Your task to perform on an android device: turn notification dots off Image 0: 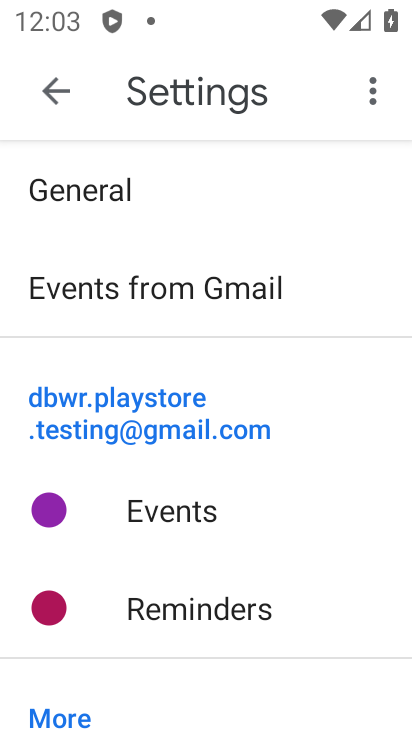
Step 0: press home button
Your task to perform on an android device: turn notification dots off Image 1: 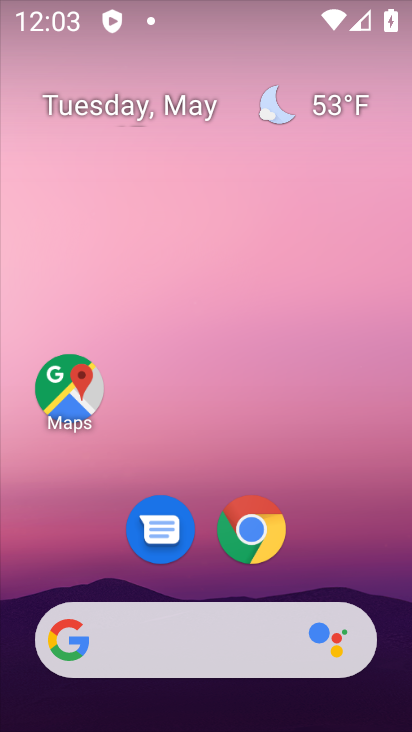
Step 1: drag from (212, 578) to (226, 177)
Your task to perform on an android device: turn notification dots off Image 2: 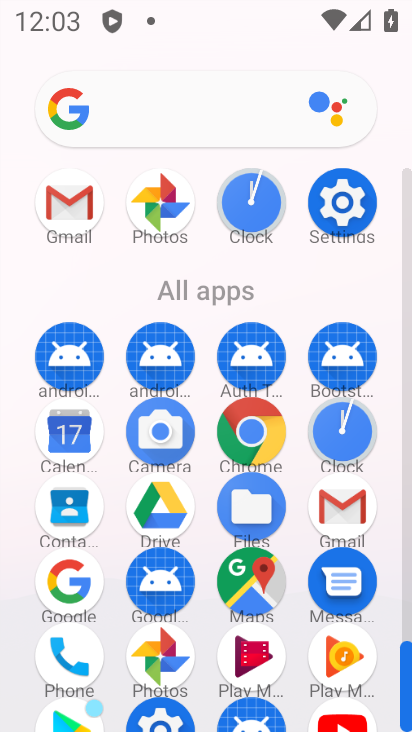
Step 2: click (348, 204)
Your task to perform on an android device: turn notification dots off Image 3: 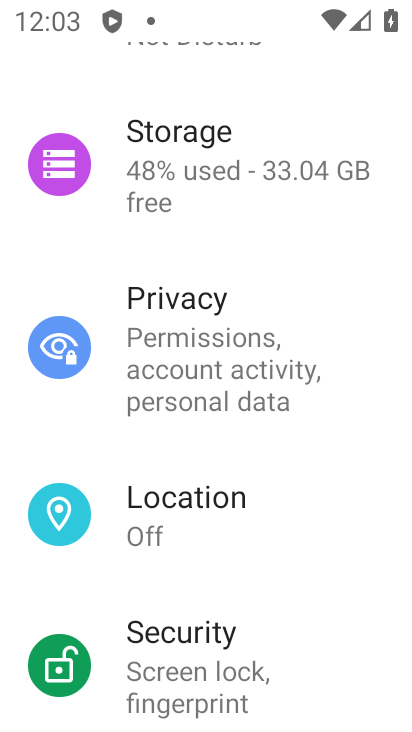
Step 3: drag from (222, 229) to (263, 647)
Your task to perform on an android device: turn notification dots off Image 4: 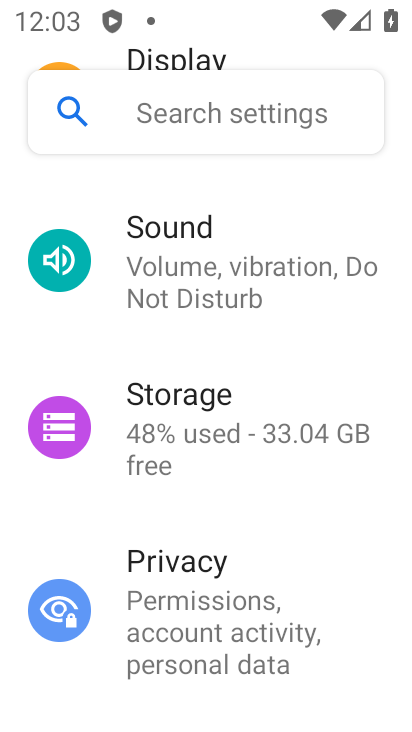
Step 4: drag from (212, 208) to (273, 609)
Your task to perform on an android device: turn notification dots off Image 5: 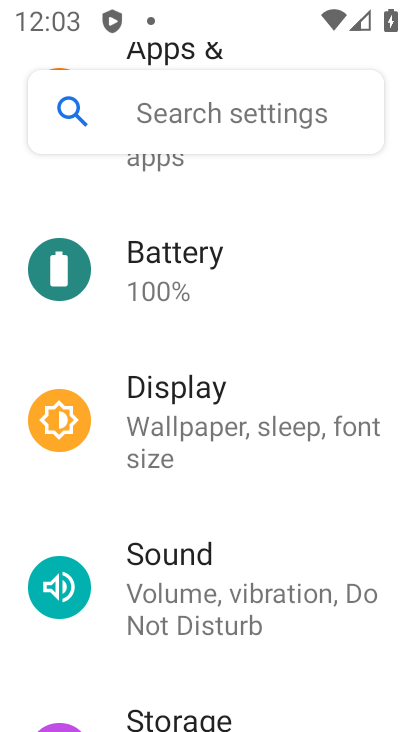
Step 5: drag from (175, 256) to (326, 682)
Your task to perform on an android device: turn notification dots off Image 6: 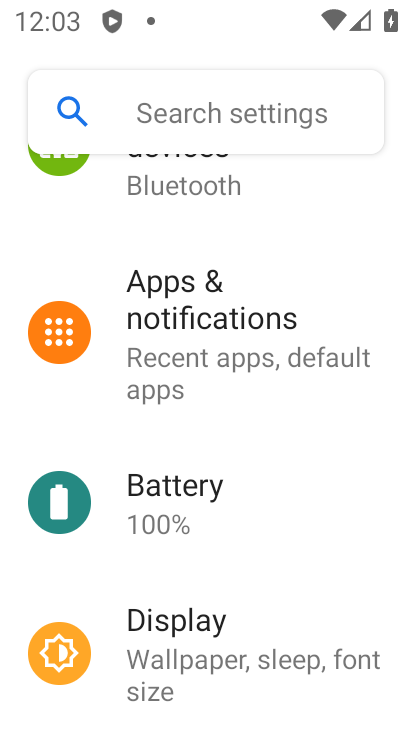
Step 6: click (251, 357)
Your task to perform on an android device: turn notification dots off Image 7: 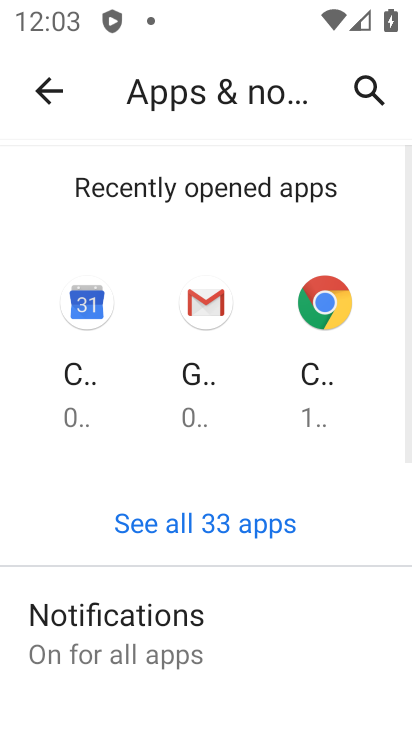
Step 7: click (130, 622)
Your task to perform on an android device: turn notification dots off Image 8: 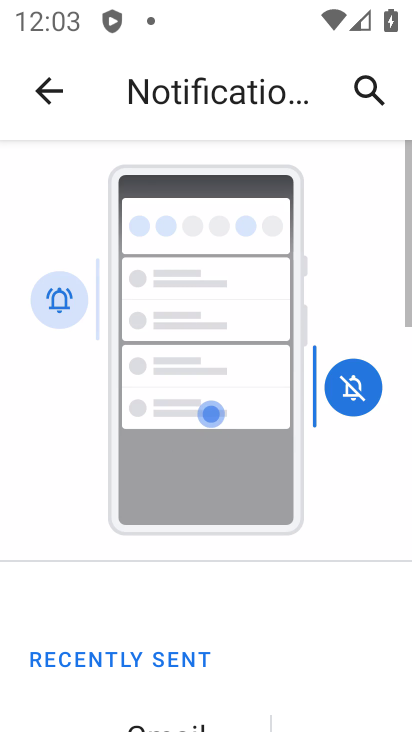
Step 8: drag from (130, 622) to (211, 99)
Your task to perform on an android device: turn notification dots off Image 9: 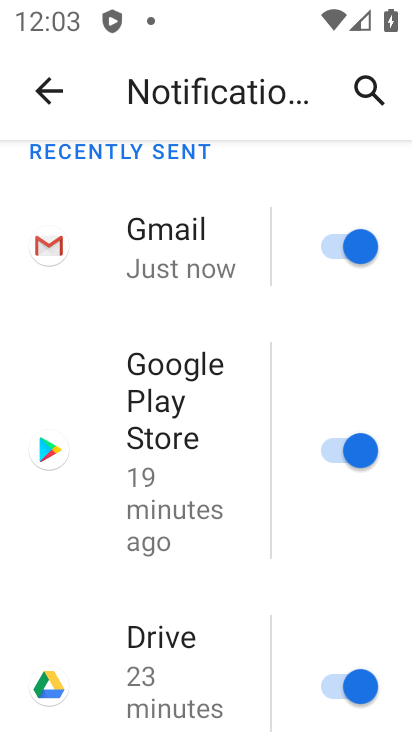
Step 9: drag from (115, 649) to (201, 156)
Your task to perform on an android device: turn notification dots off Image 10: 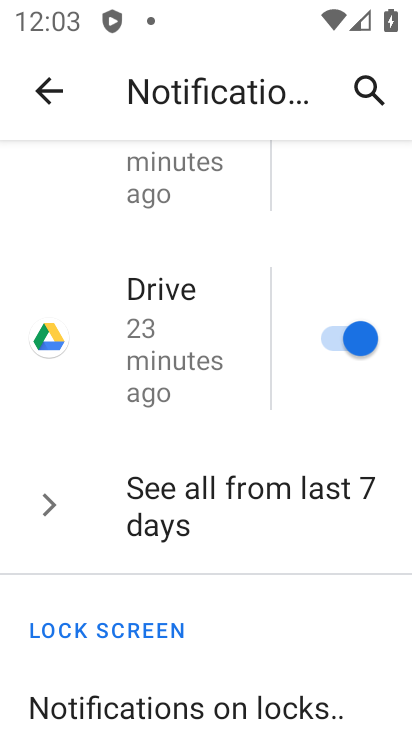
Step 10: drag from (197, 689) to (337, 56)
Your task to perform on an android device: turn notification dots off Image 11: 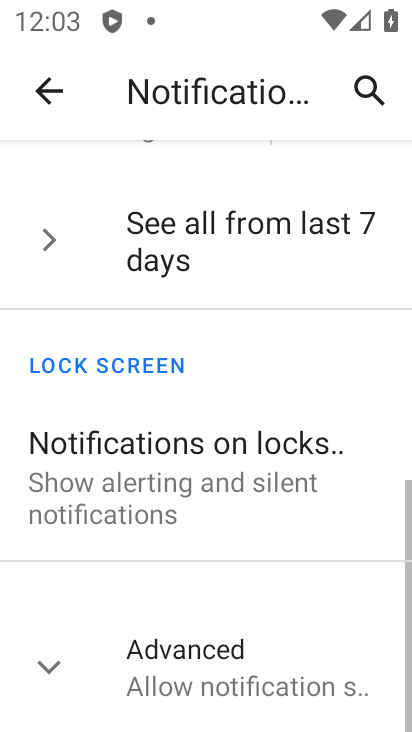
Step 11: drag from (167, 670) to (257, 146)
Your task to perform on an android device: turn notification dots off Image 12: 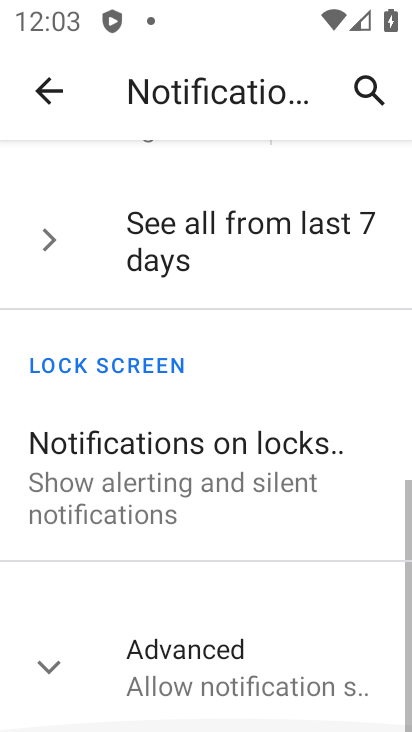
Step 12: click (160, 651)
Your task to perform on an android device: turn notification dots off Image 13: 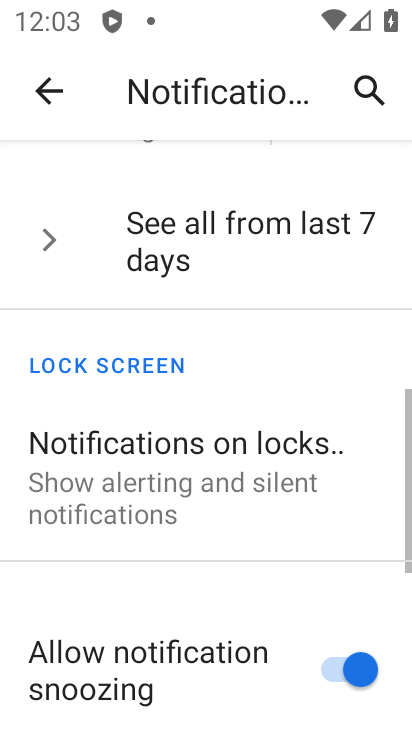
Step 13: drag from (160, 651) to (281, 193)
Your task to perform on an android device: turn notification dots off Image 14: 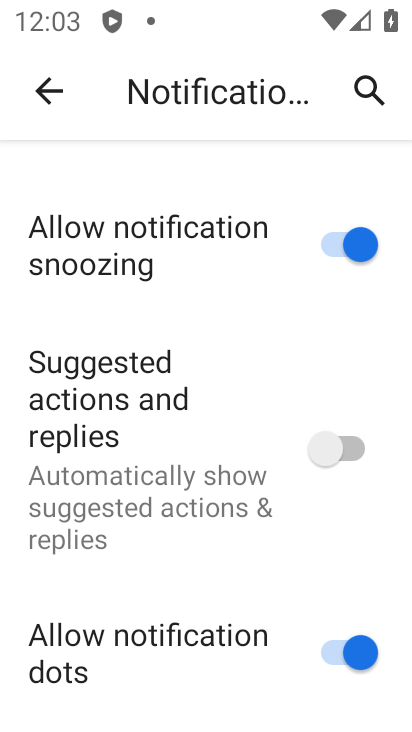
Step 14: click (355, 656)
Your task to perform on an android device: turn notification dots off Image 15: 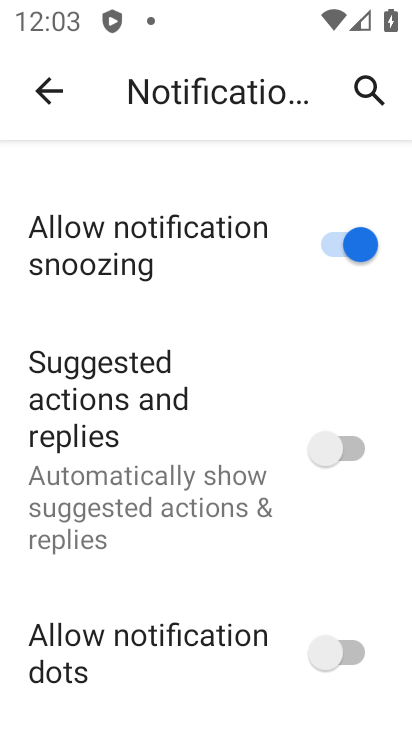
Step 15: task complete